Your task to perform on an android device: Go to wifi settings Image 0: 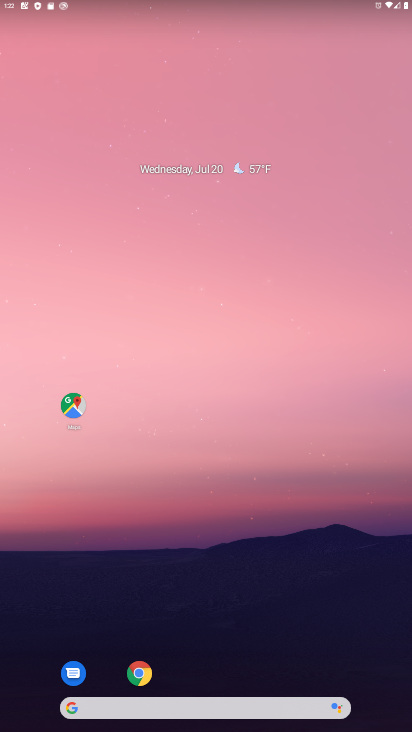
Step 0: drag from (128, 5) to (129, 431)
Your task to perform on an android device: Go to wifi settings Image 1: 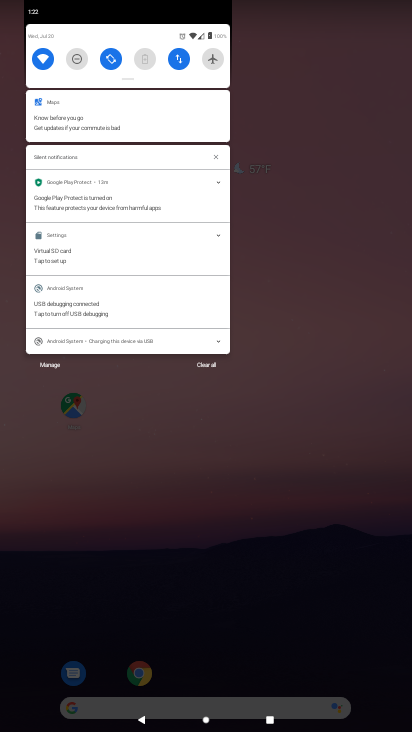
Step 1: click (39, 60)
Your task to perform on an android device: Go to wifi settings Image 2: 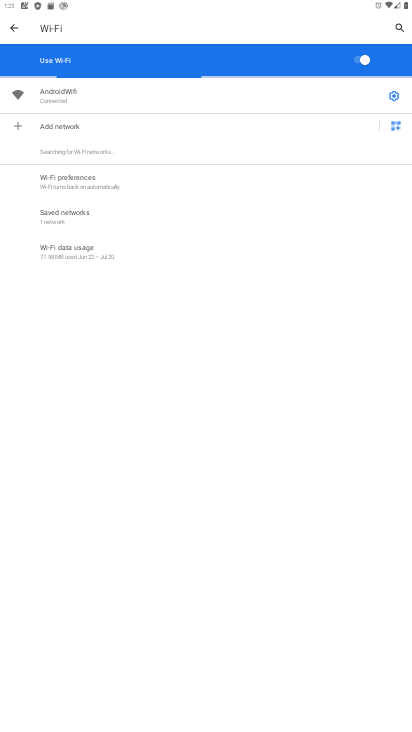
Step 2: task complete